Your task to perform on an android device: What's the weather going to be this weekend? Image 0: 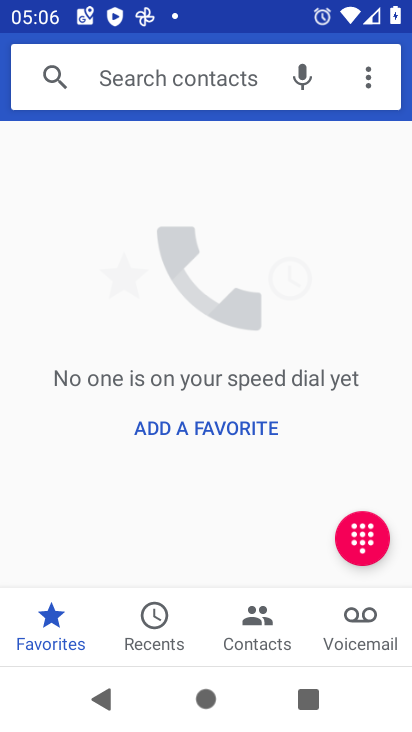
Step 0: press home button
Your task to perform on an android device: What's the weather going to be this weekend? Image 1: 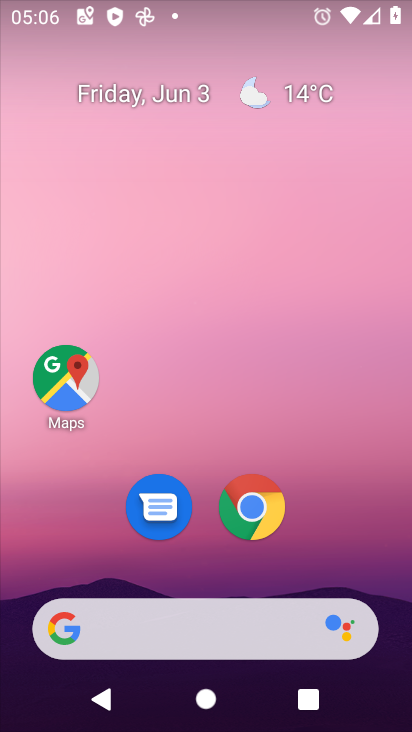
Step 1: click (213, 624)
Your task to perform on an android device: What's the weather going to be this weekend? Image 2: 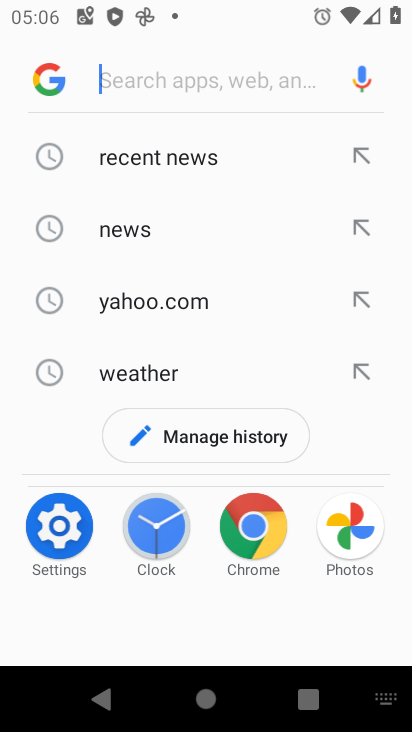
Step 2: type "weather going to be this weekend?"
Your task to perform on an android device: What's the weather going to be this weekend? Image 3: 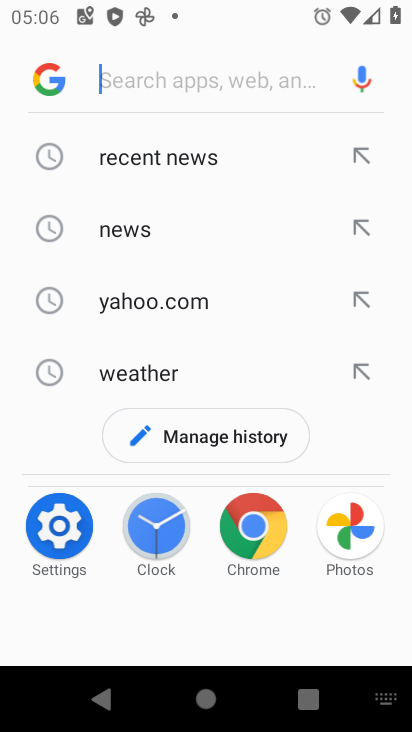
Step 3: click (157, 86)
Your task to perform on an android device: What's the weather going to be this weekend? Image 4: 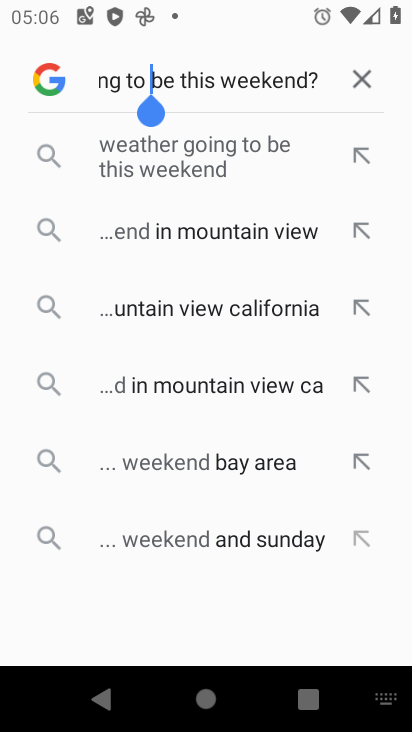
Step 4: click (143, 150)
Your task to perform on an android device: What's the weather going to be this weekend? Image 5: 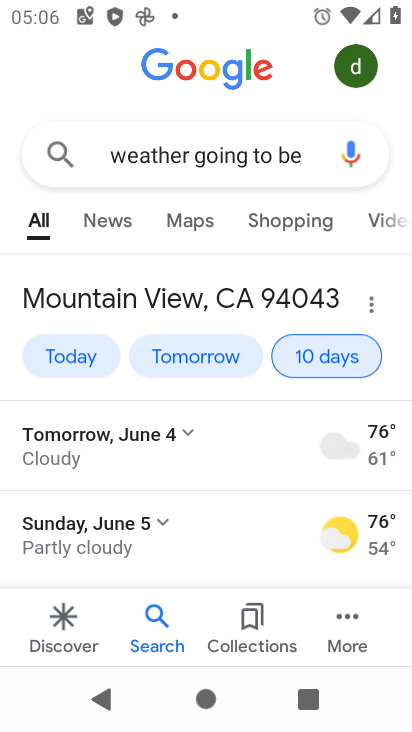
Step 5: task complete